Your task to perform on an android device: Open Reddit.com Image 0: 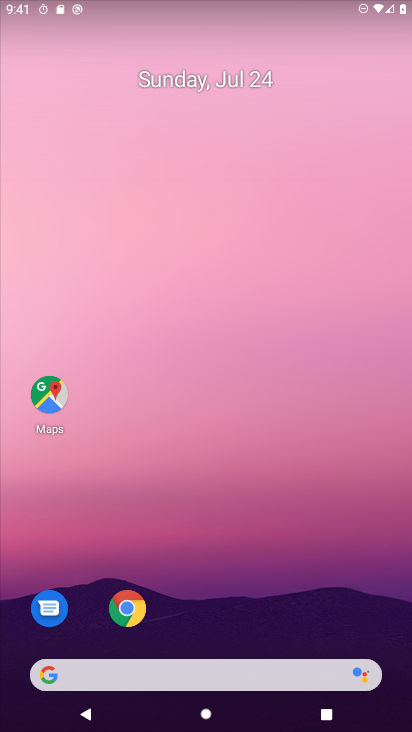
Step 0: drag from (168, 626) to (69, 7)
Your task to perform on an android device: Open Reddit.com Image 1: 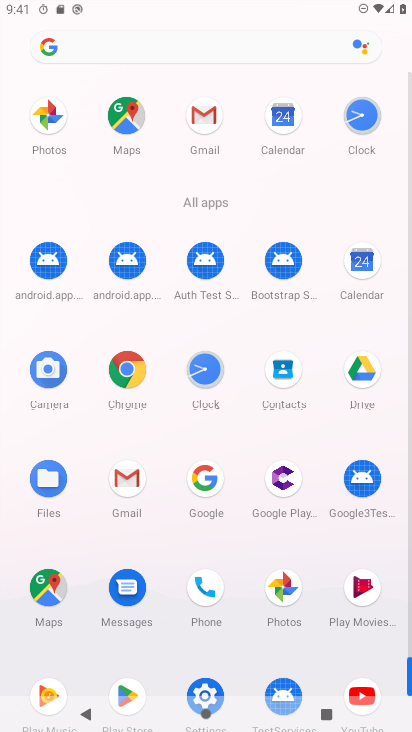
Step 1: click (186, 52)
Your task to perform on an android device: Open Reddit.com Image 2: 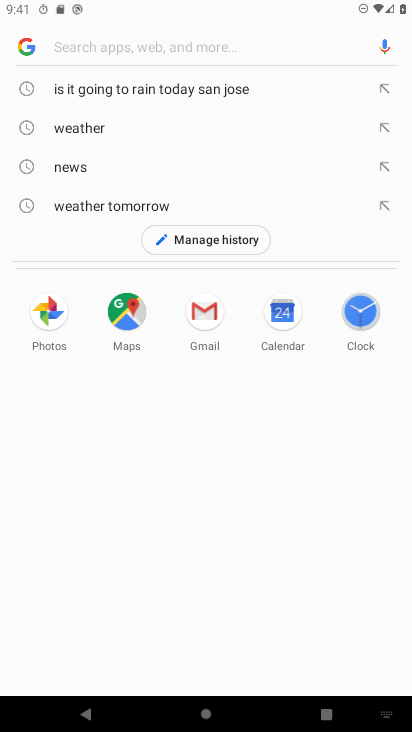
Step 2: type "Reddit.com"
Your task to perform on an android device: Open Reddit.com Image 3: 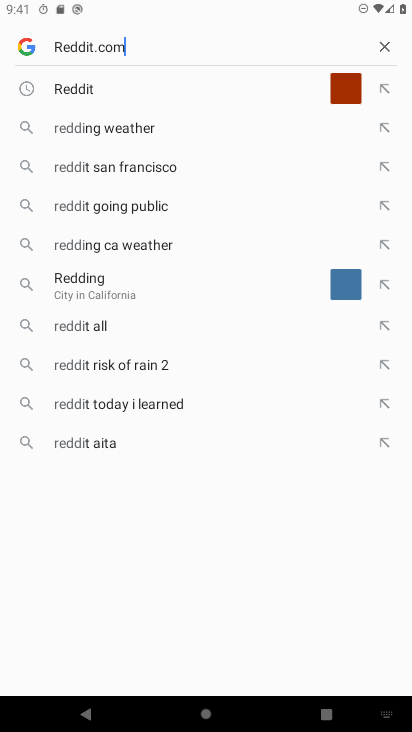
Step 3: type ""
Your task to perform on an android device: Open Reddit.com Image 4: 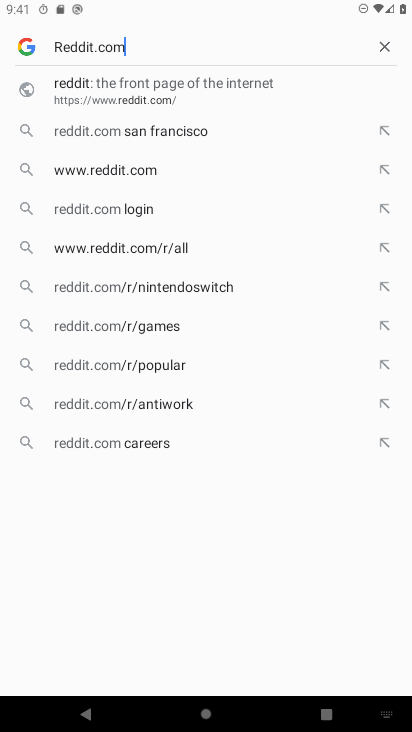
Step 4: click (81, 95)
Your task to perform on an android device: Open Reddit.com Image 5: 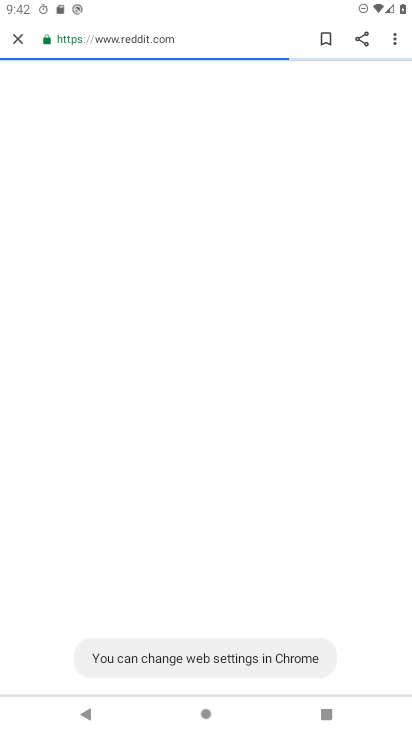
Step 5: task complete